Your task to perform on an android device: open app "Adobe Acrobat Reader" (install if not already installed) Image 0: 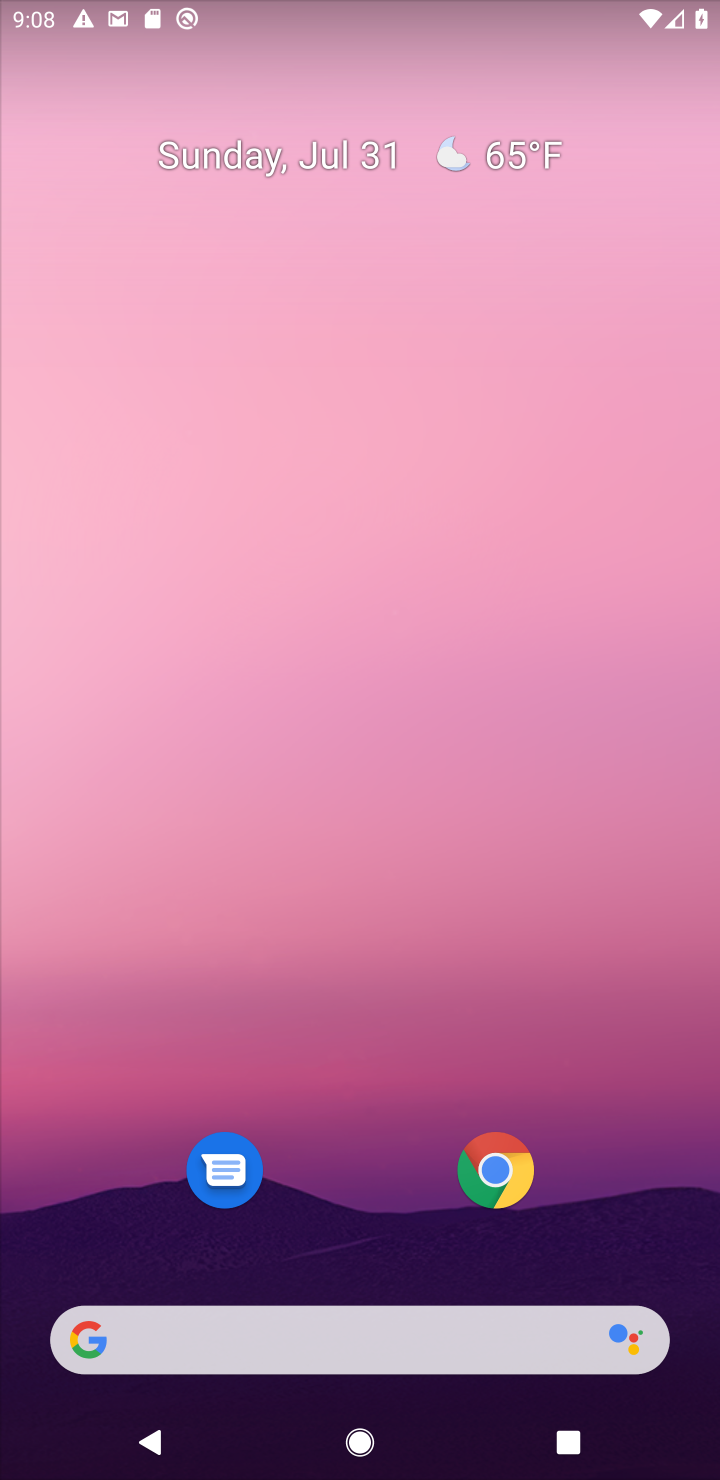
Step 0: drag from (371, 1240) to (332, 86)
Your task to perform on an android device: open app "Adobe Acrobat Reader" (install if not already installed) Image 1: 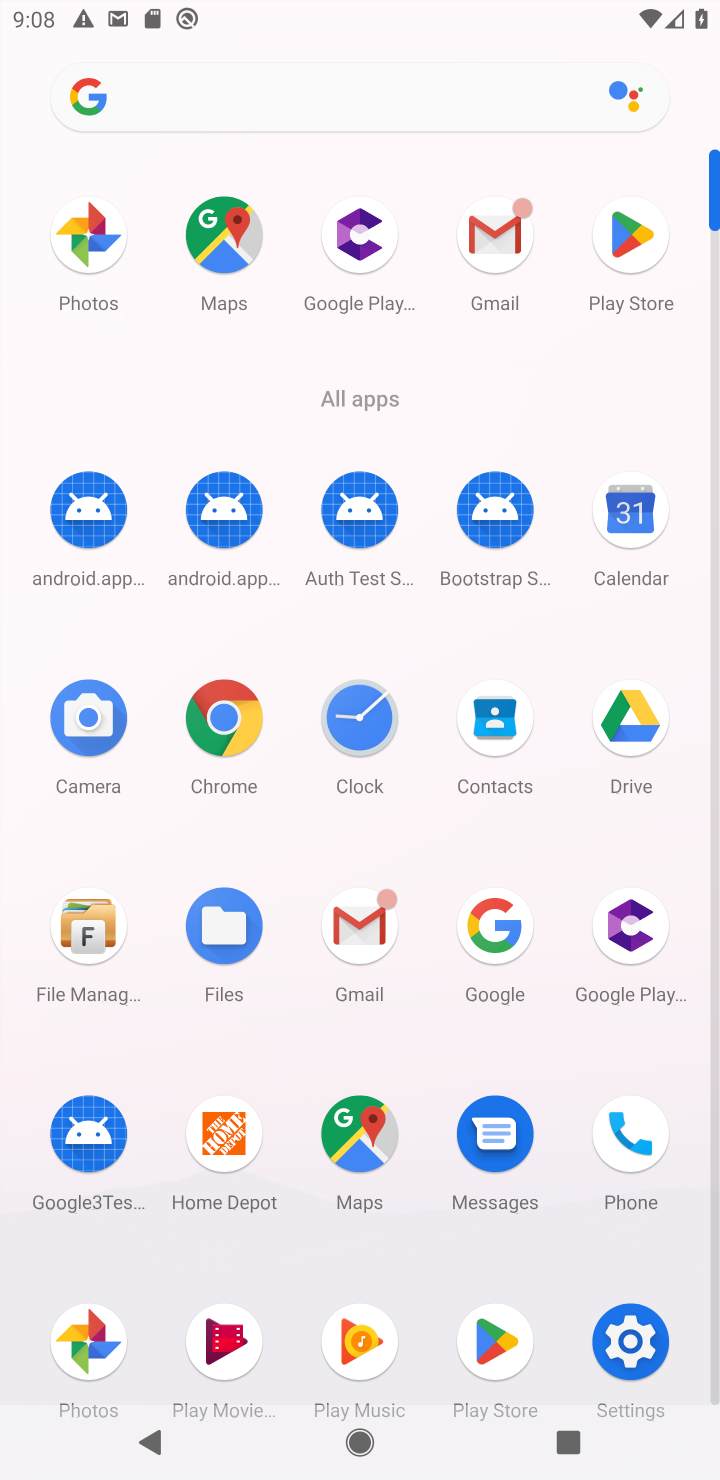
Step 1: click (499, 1365)
Your task to perform on an android device: open app "Adobe Acrobat Reader" (install if not already installed) Image 2: 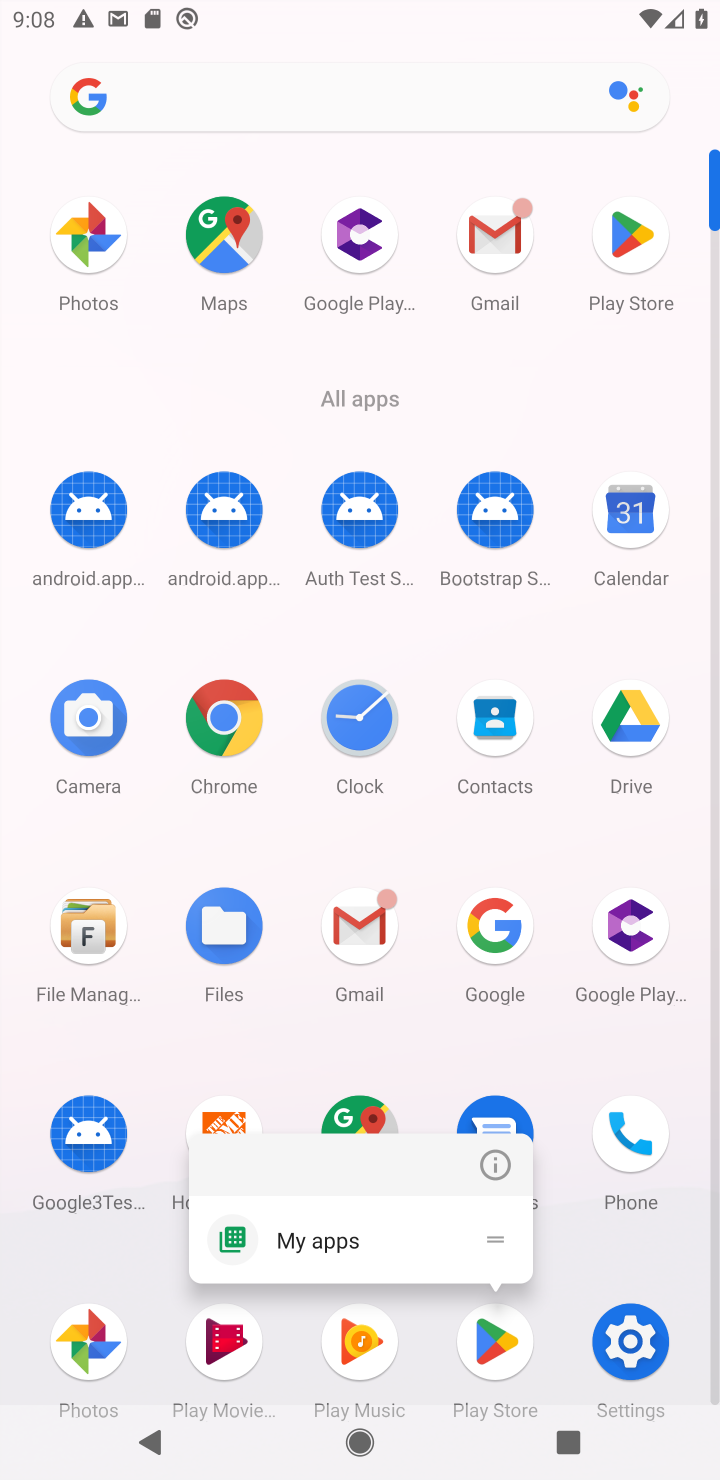
Step 2: click (499, 1365)
Your task to perform on an android device: open app "Adobe Acrobat Reader" (install if not already installed) Image 3: 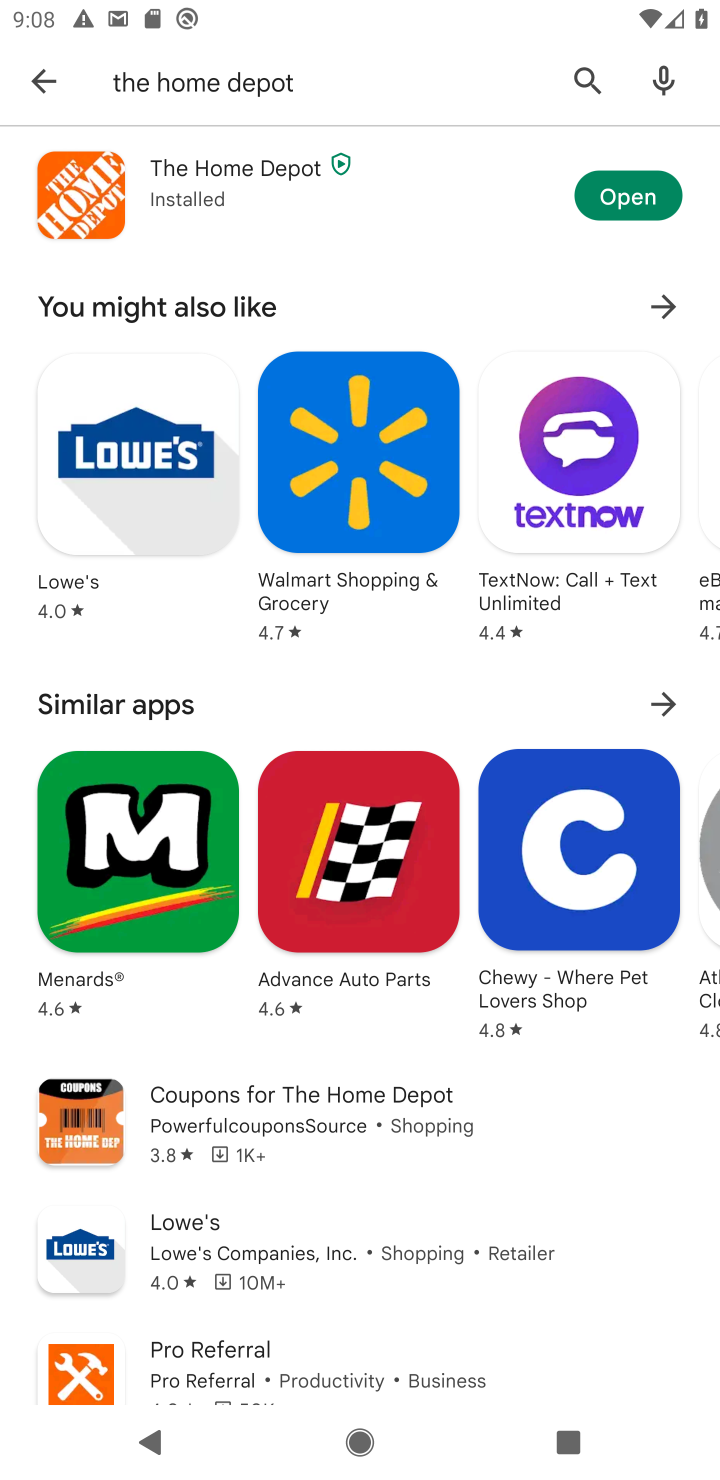
Step 3: click (43, 74)
Your task to perform on an android device: open app "Adobe Acrobat Reader" (install if not already installed) Image 4: 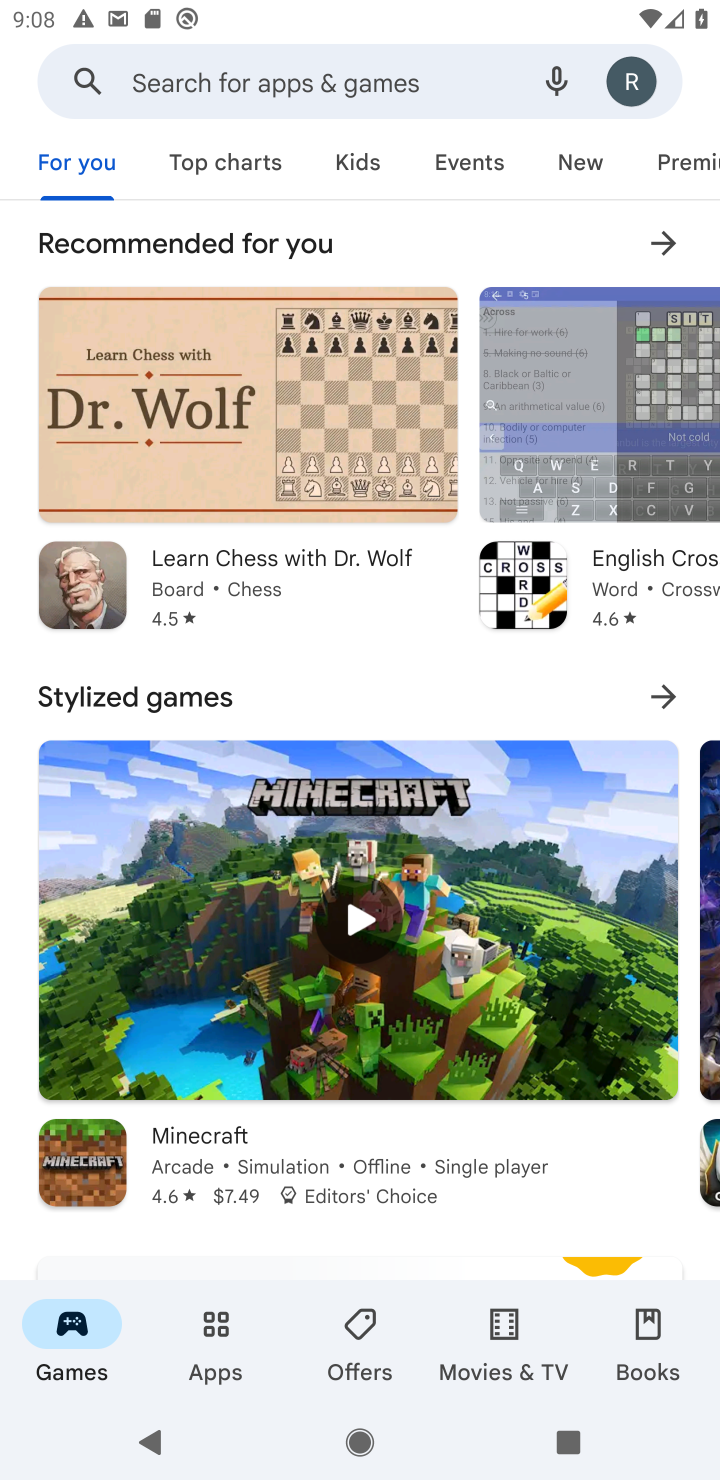
Step 4: click (160, 86)
Your task to perform on an android device: open app "Adobe Acrobat Reader" (install if not already installed) Image 5: 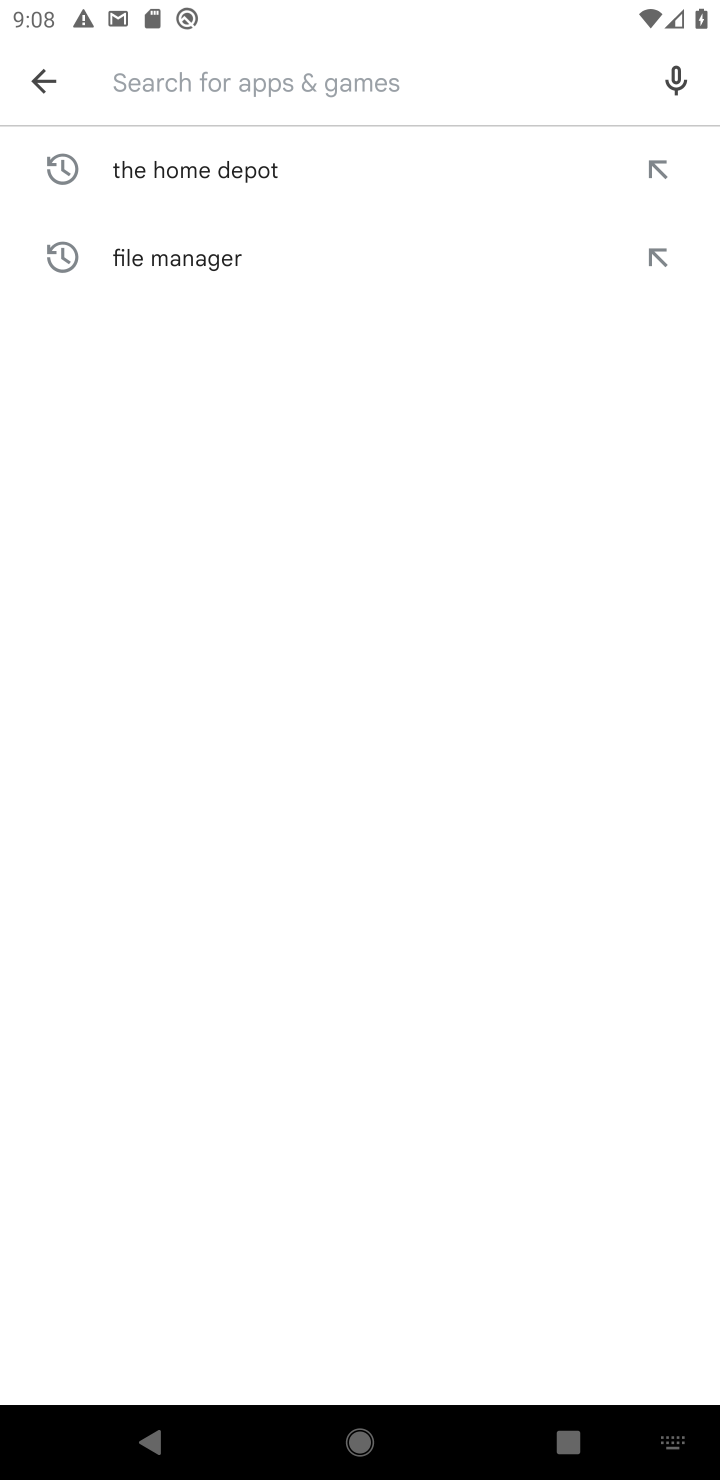
Step 5: type "Adobe Acrobat Reader"
Your task to perform on an android device: open app "Adobe Acrobat Reader" (install if not already installed) Image 6: 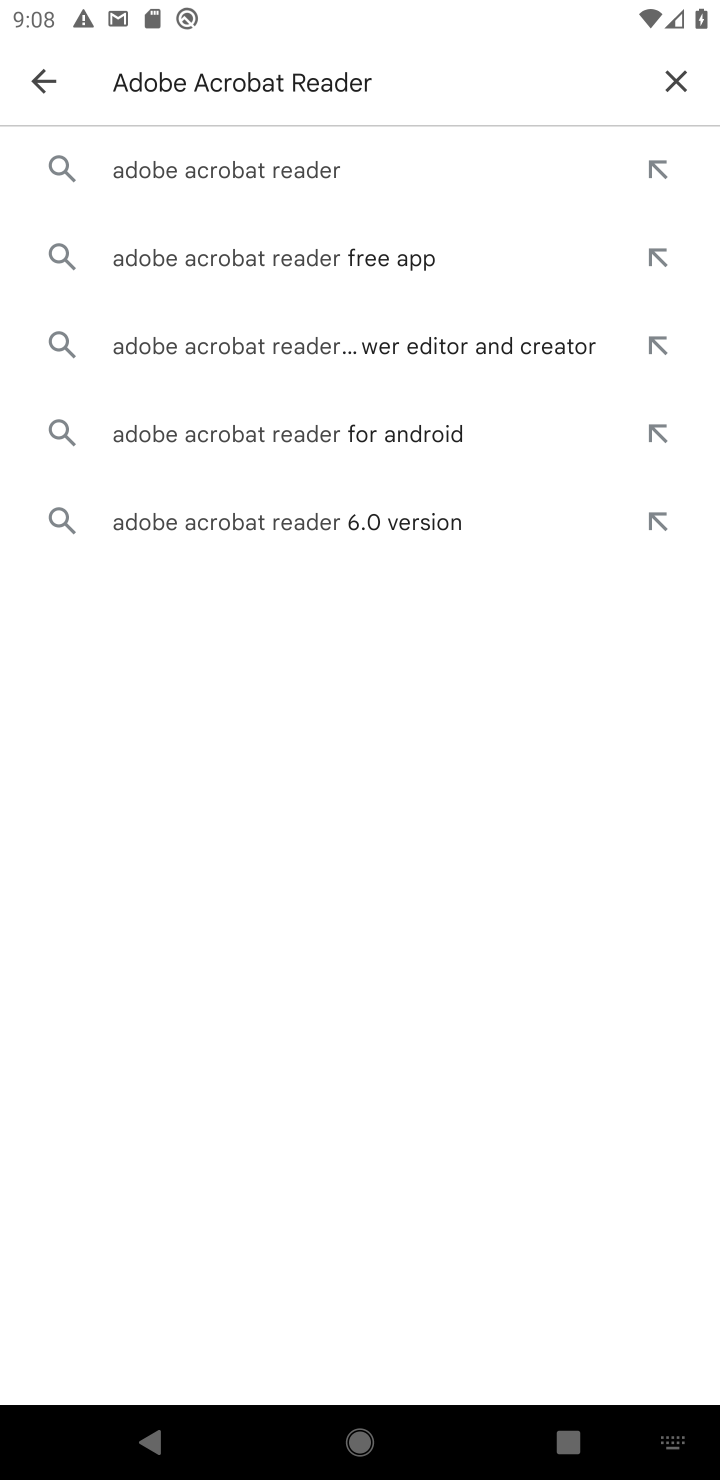
Step 6: click (283, 174)
Your task to perform on an android device: open app "Adobe Acrobat Reader" (install if not already installed) Image 7: 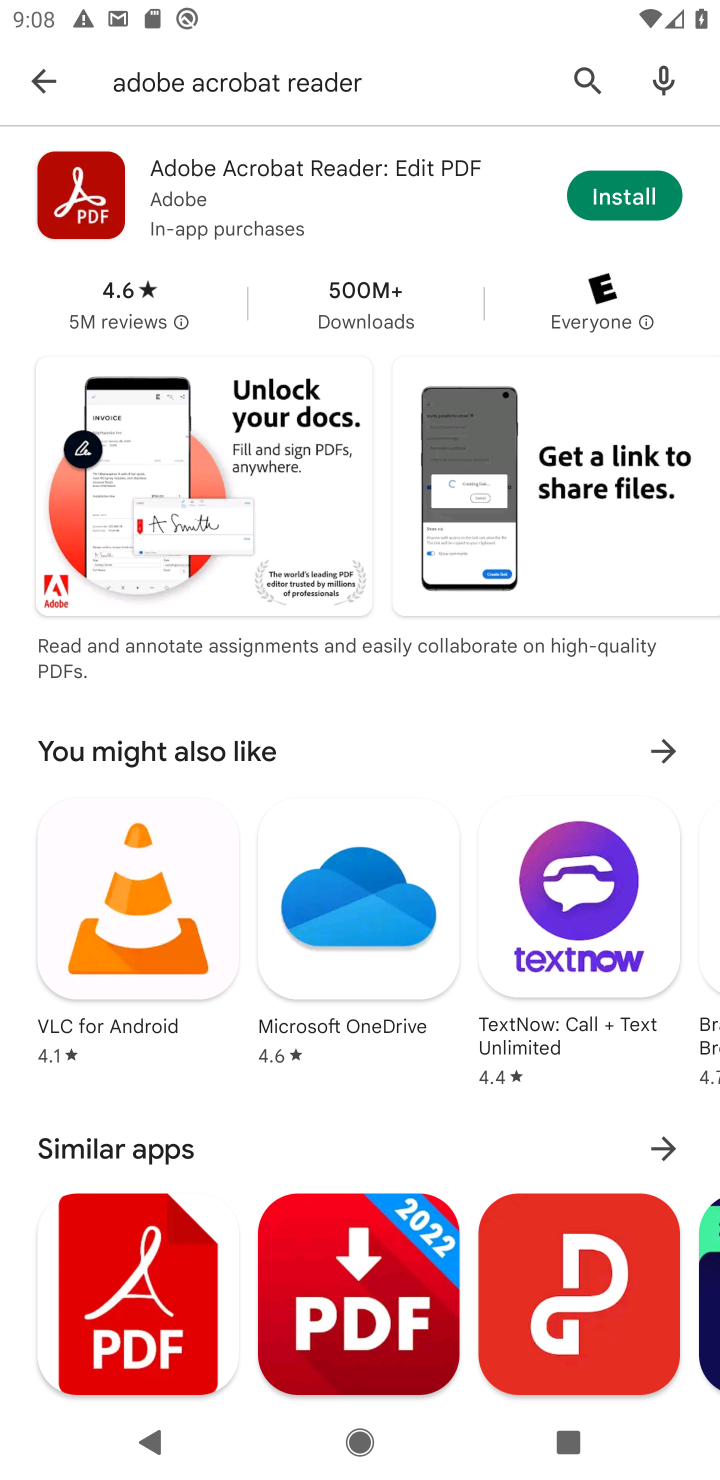
Step 7: click (628, 208)
Your task to perform on an android device: open app "Adobe Acrobat Reader" (install if not already installed) Image 8: 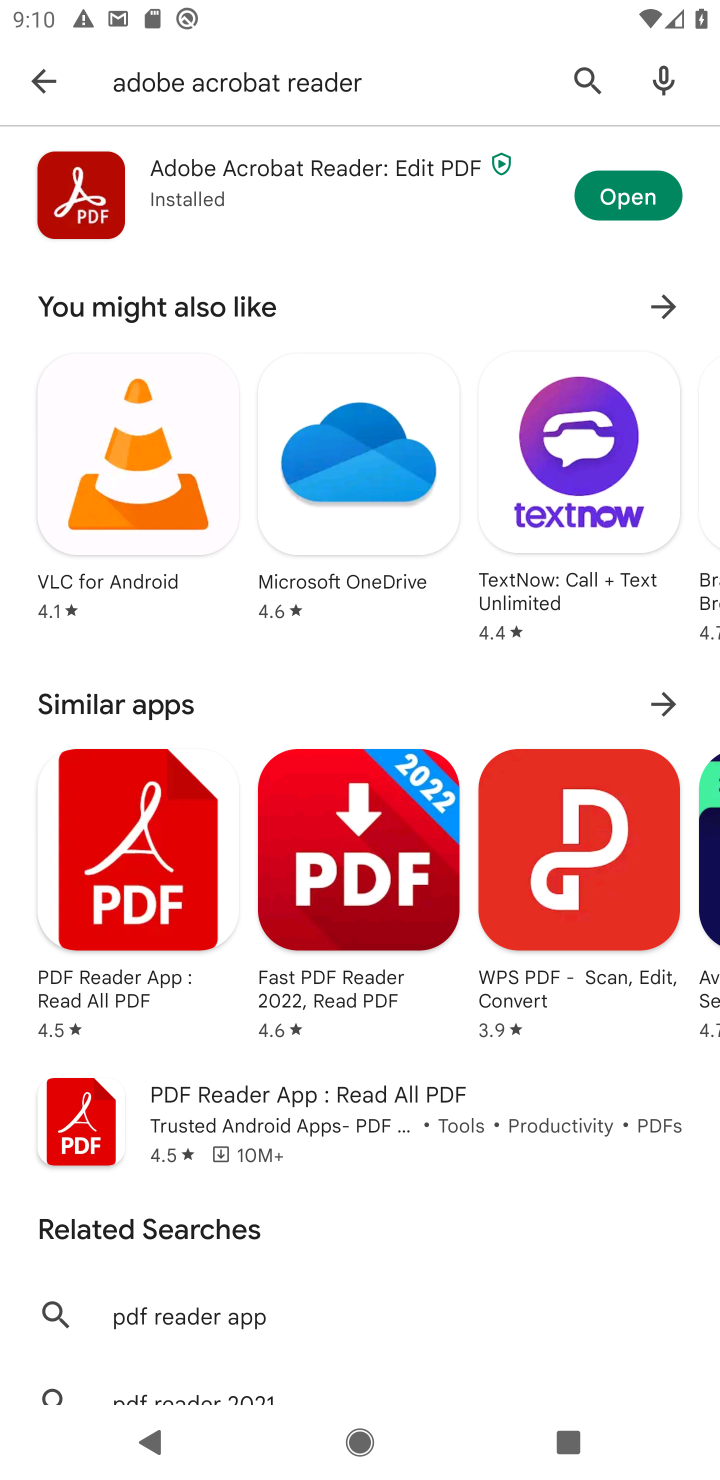
Step 8: click (649, 178)
Your task to perform on an android device: open app "Adobe Acrobat Reader" (install if not already installed) Image 9: 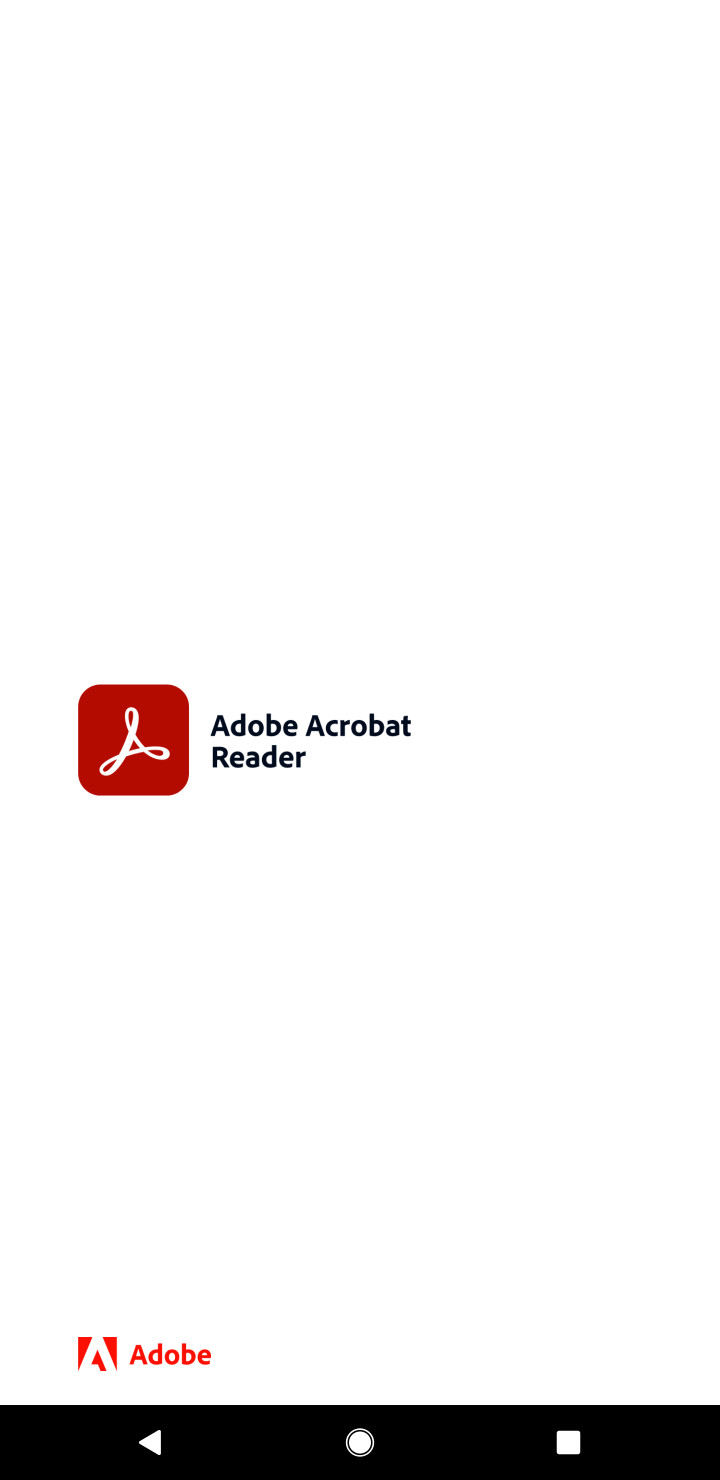
Step 9: task complete